Your task to perform on an android device: turn on javascript in the chrome app Image 0: 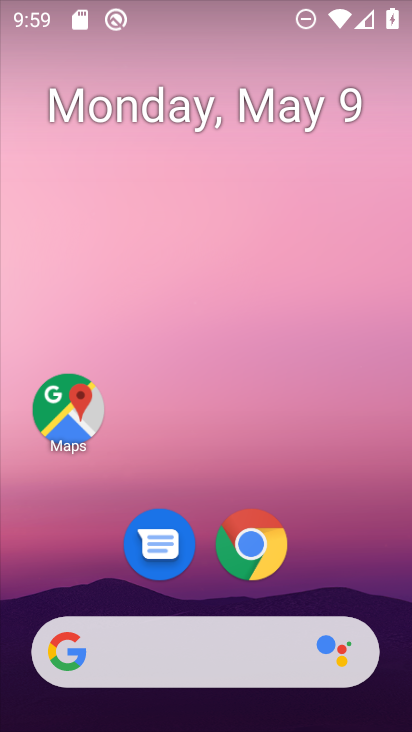
Step 0: click (248, 545)
Your task to perform on an android device: turn on javascript in the chrome app Image 1: 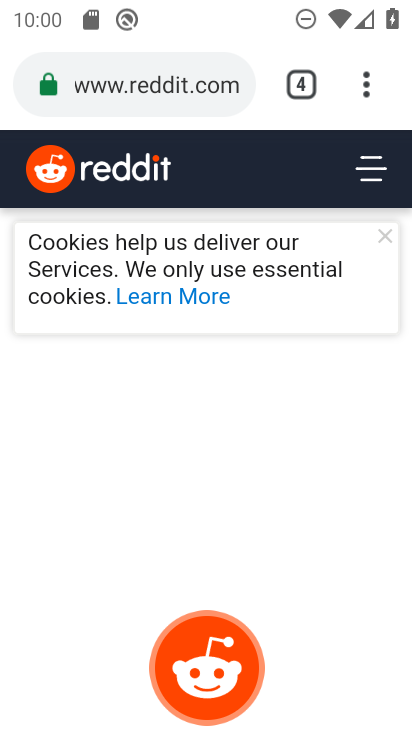
Step 1: click (363, 83)
Your task to perform on an android device: turn on javascript in the chrome app Image 2: 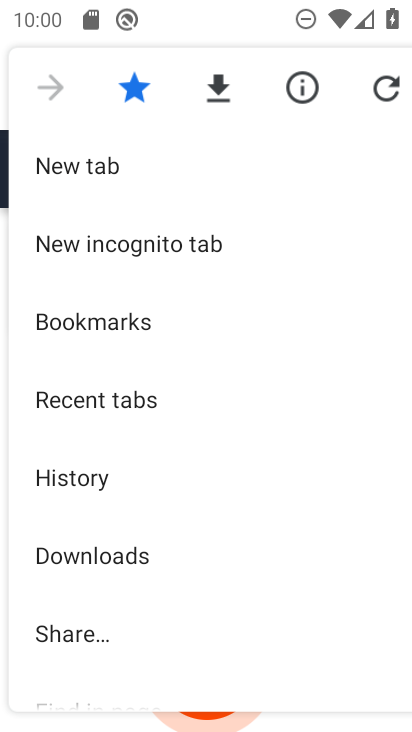
Step 2: drag from (233, 559) to (192, 151)
Your task to perform on an android device: turn on javascript in the chrome app Image 3: 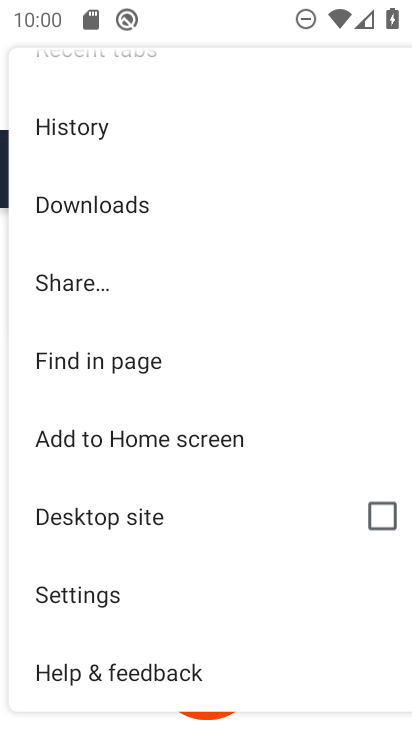
Step 3: click (94, 597)
Your task to perform on an android device: turn on javascript in the chrome app Image 4: 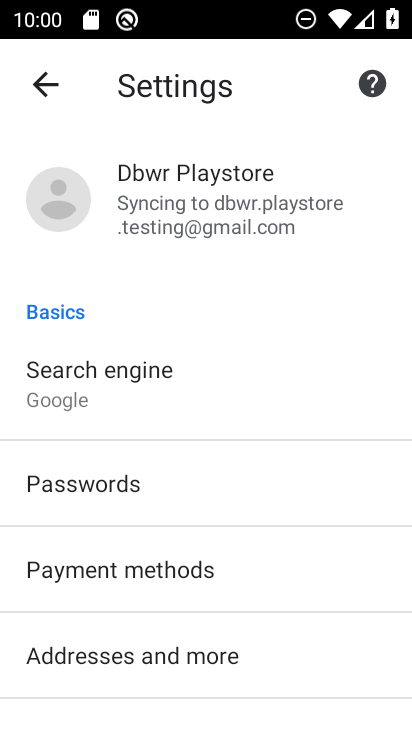
Step 4: drag from (189, 588) to (189, 179)
Your task to perform on an android device: turn on javascript in the chrome app Image 5: 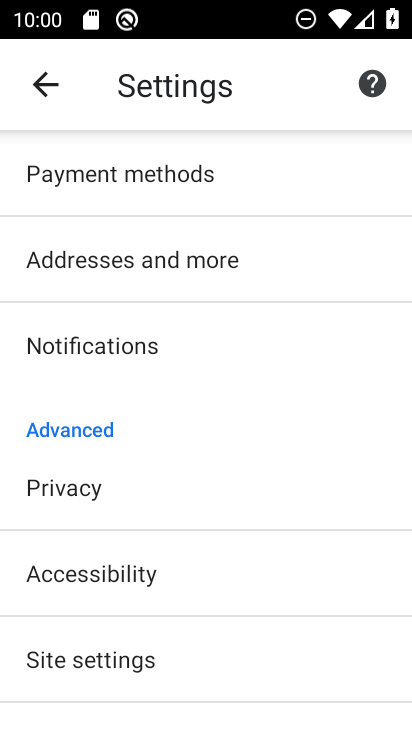
Step 5: drag from (205, 503) to (191, 11)
Your task to perform on an android device: turn on javascript in the chrome app Image 6: 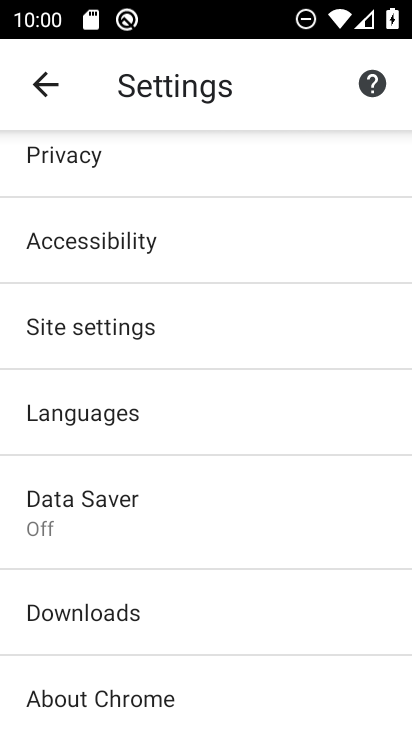
Step 6: click (102, 329)
Your task to perform on an android device: turn on javascript in the chrome app Image 7: 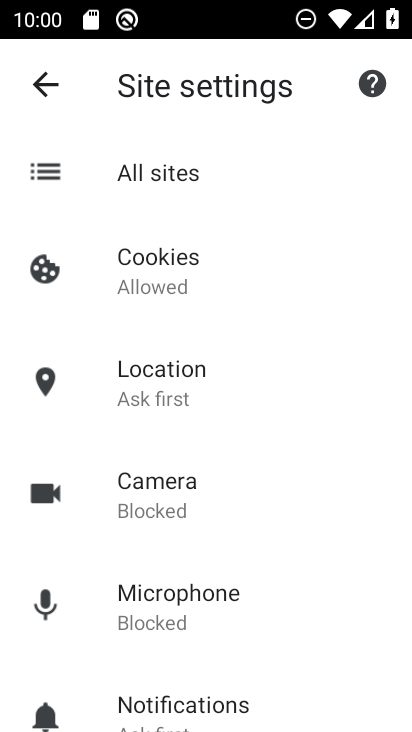
Step 7: drag from (235, 652) to (214, 295)
Your task to perform on an android device: turn on javascript in the chrome app Image 8: 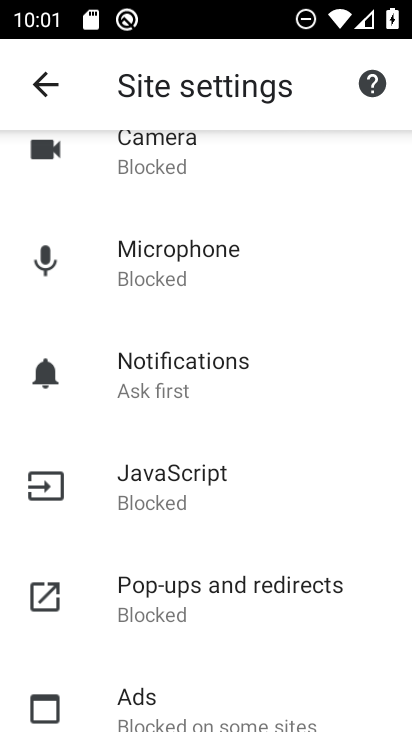
Step 8: click (168, 478)
Your task to perform on an android device: turn on javascript in the chrome app Image 9: 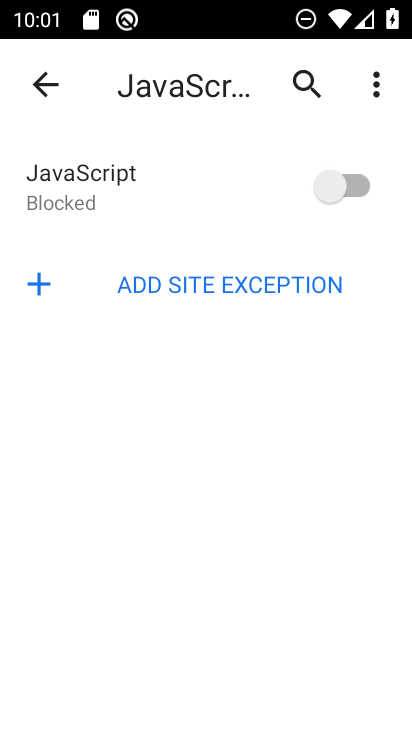
Step 9: click (335, 187)
Your task to perform on an android device: turn on javascript in the chrome app Image 10: 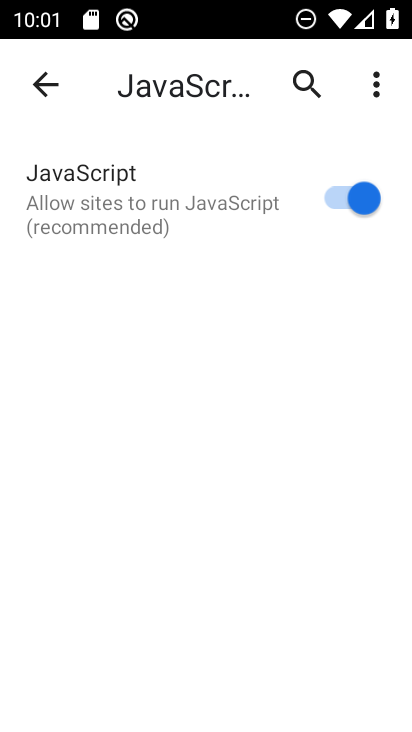
Step 10: task complete